Your task to perform on an android device: turn off airplane mode Image 0: 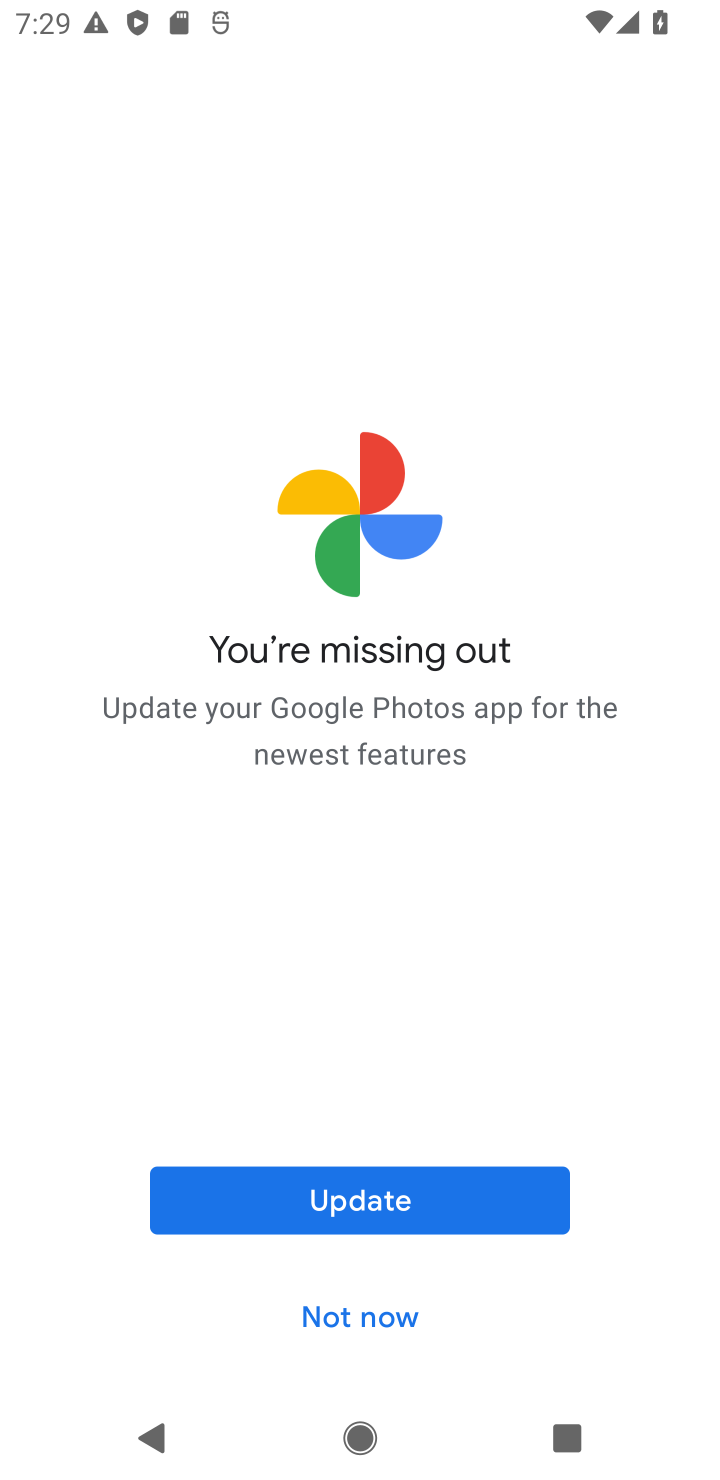
Step 0: drag from (482, 4) to (490, 830)
Your task to perform on an android device: turn off airplane mode Image 1: 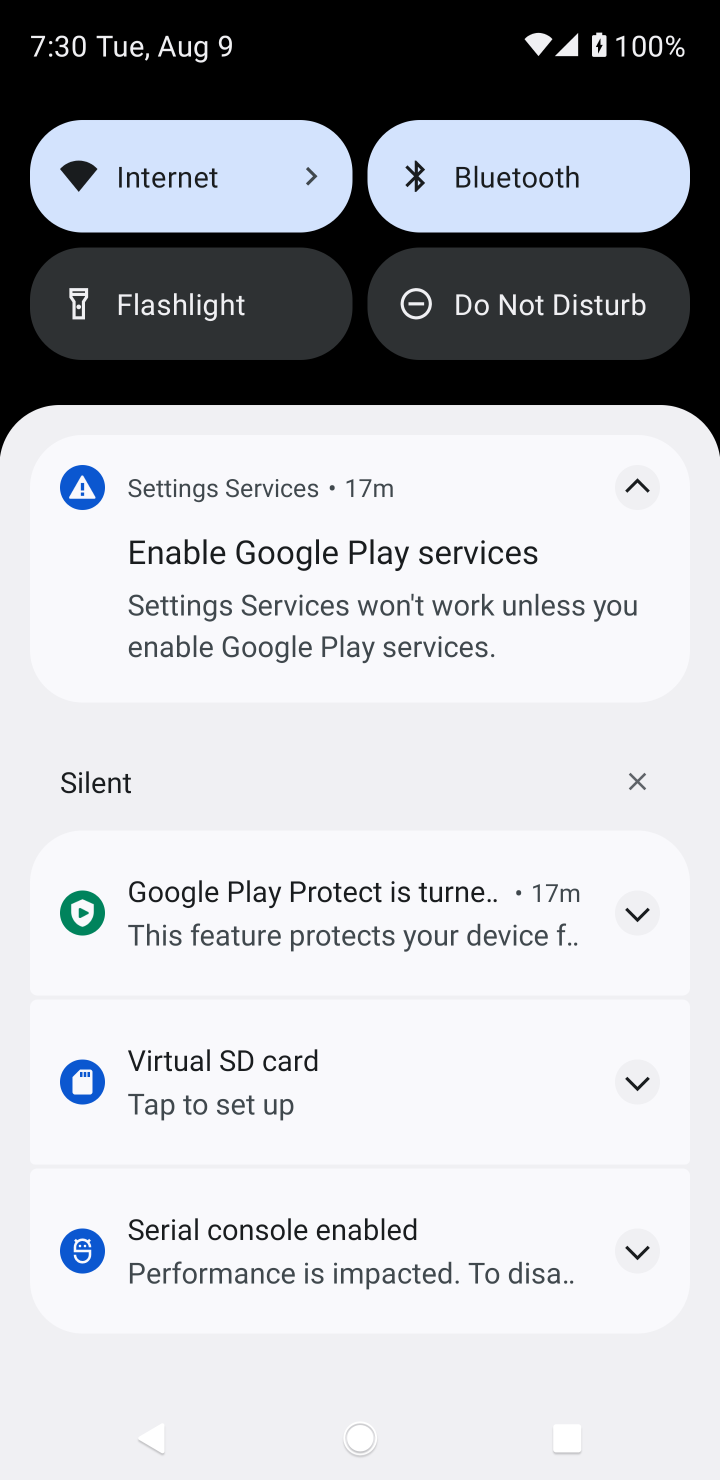
Step 1: drag from (350, 232) to (402, 581)
Your task to perform on an android device: turn off airplane mode Image 2: 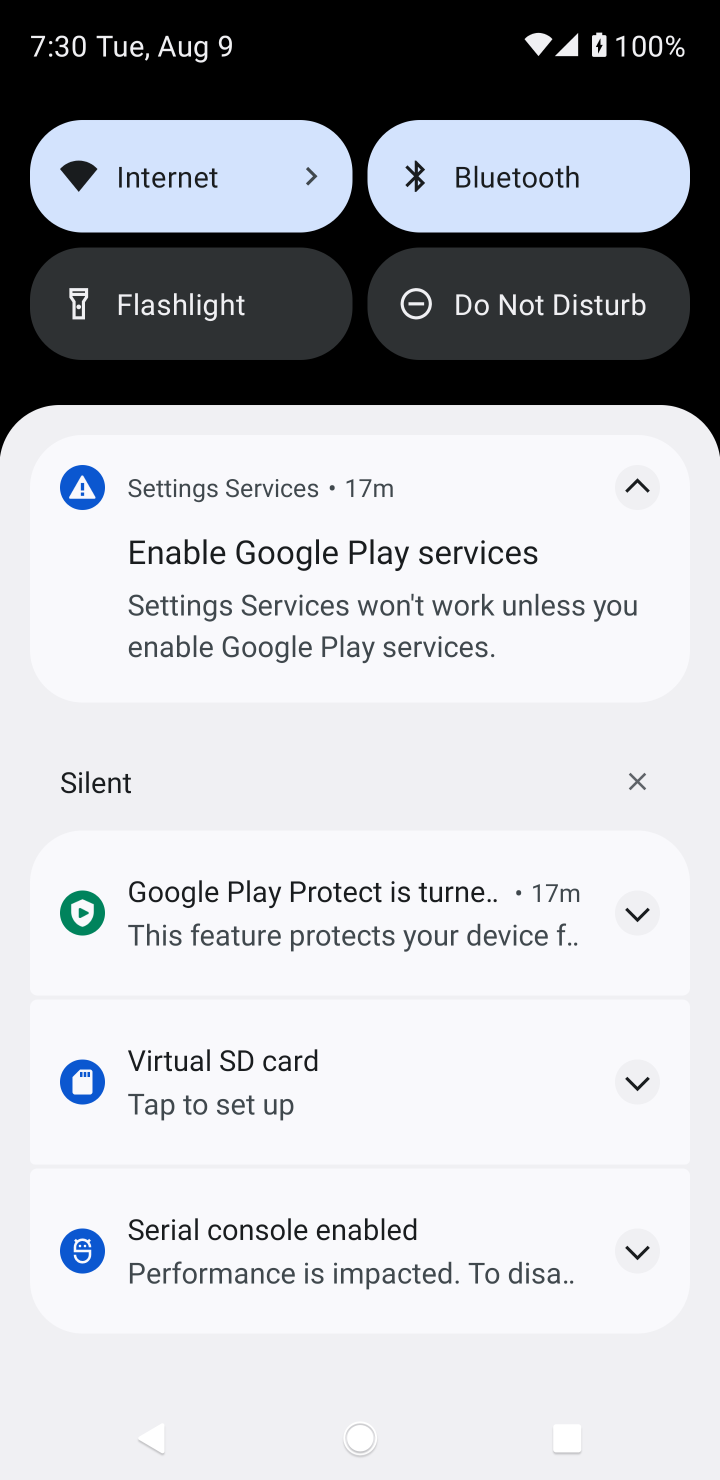
Step 2: drag from (347, 248) to (446, 1025)
Your task to perform on an android device: turn off airplane mode Image 3: 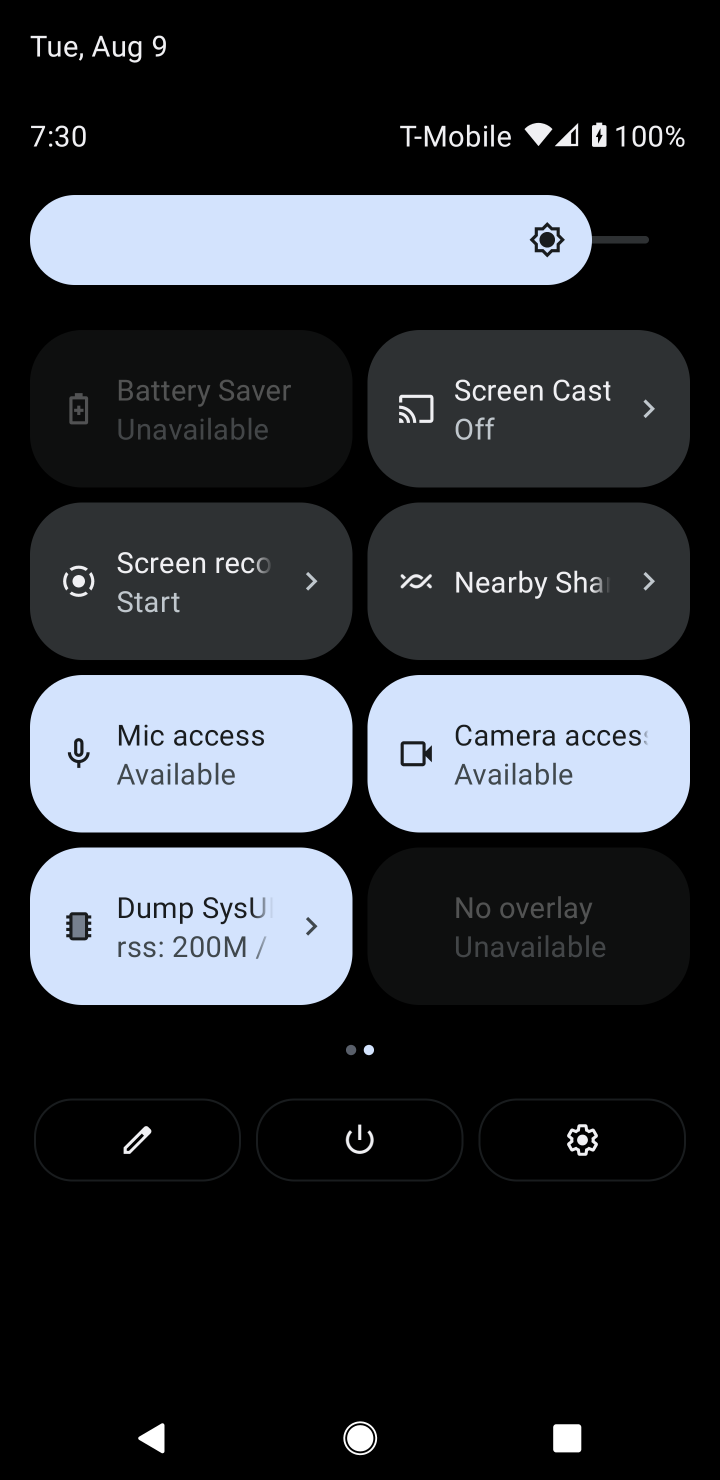
Step 3: drag from (127, 1058) to (599, 998)
Your task to perform on an android device: turn off airplane mode Image 4: 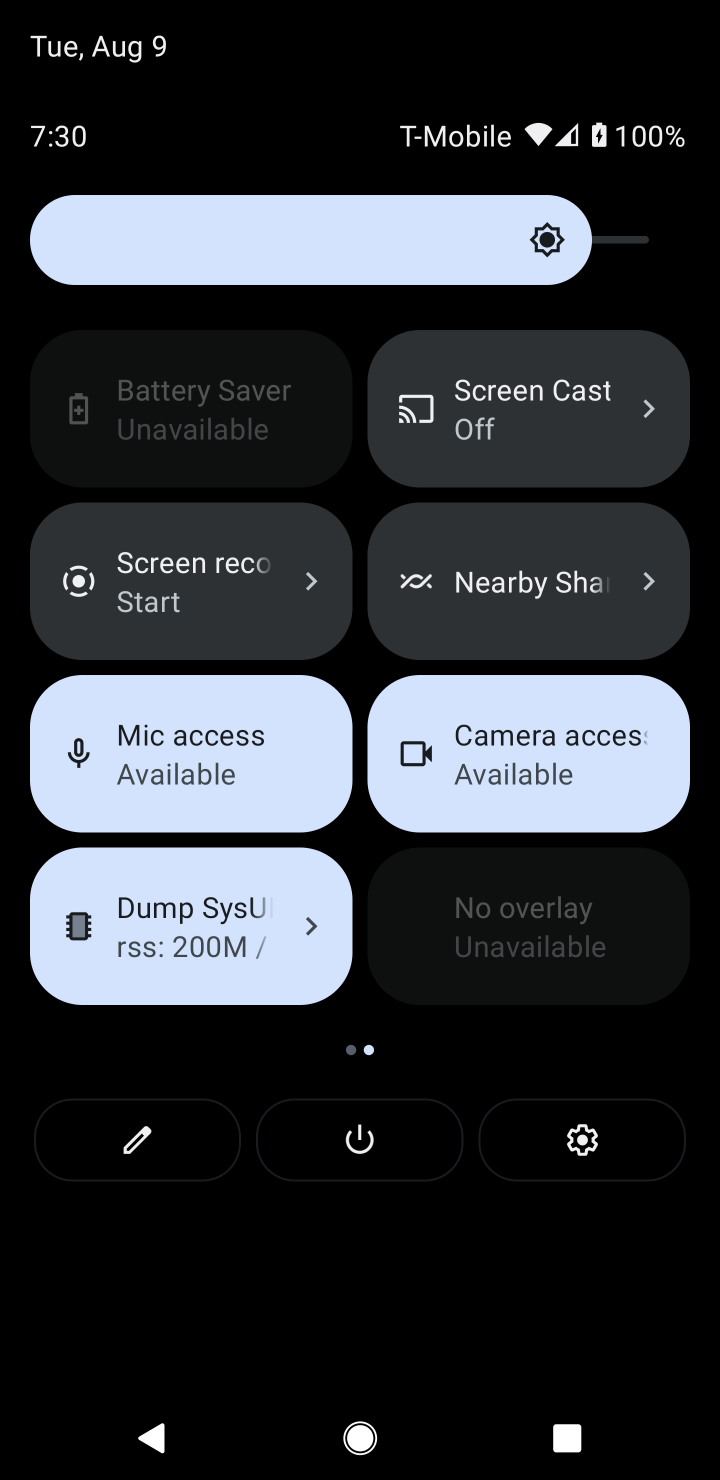
Step 4: click (571, 1137)
Your task to perform on an android device: turn off airplane mode Image 5: 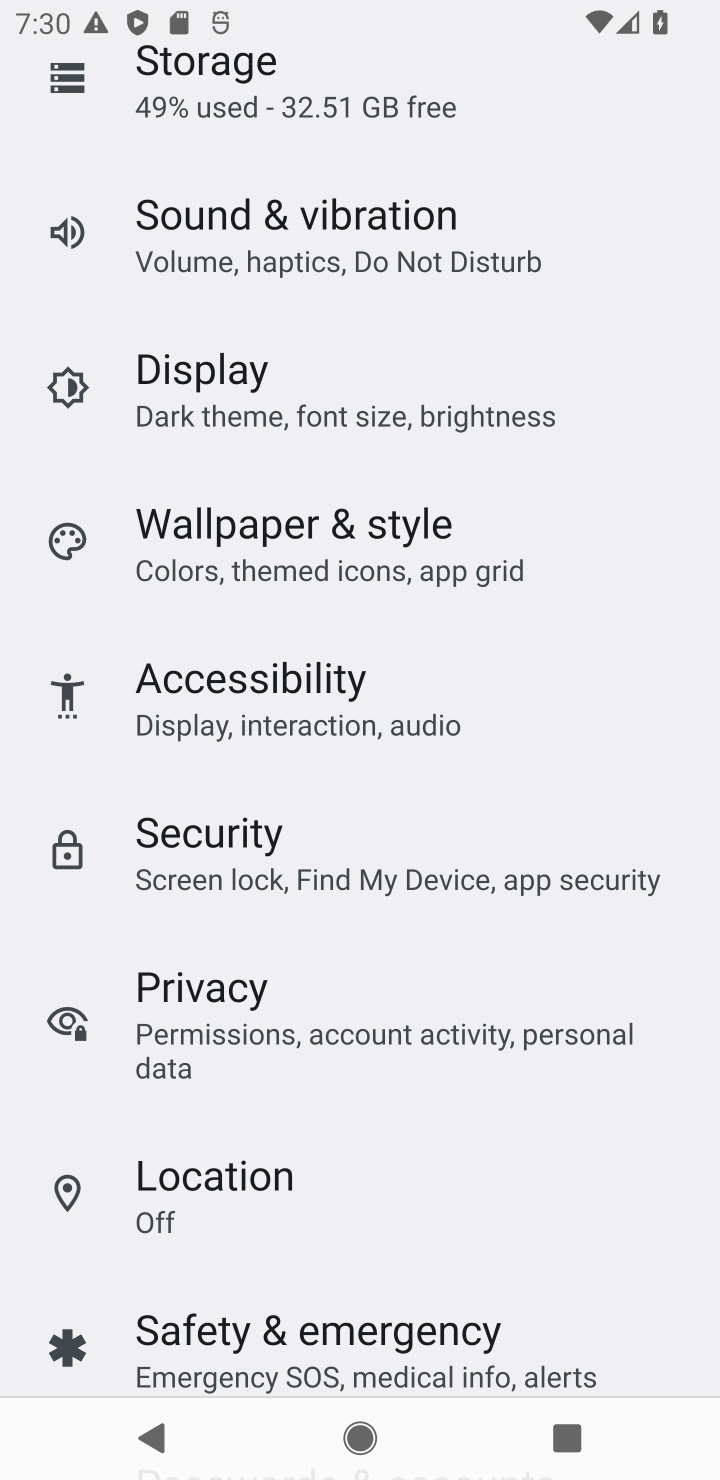
Step 5: drag from (181, 161) to (274, 1027)
Your task to perform on an android device: turn off airplane mode Image 6: 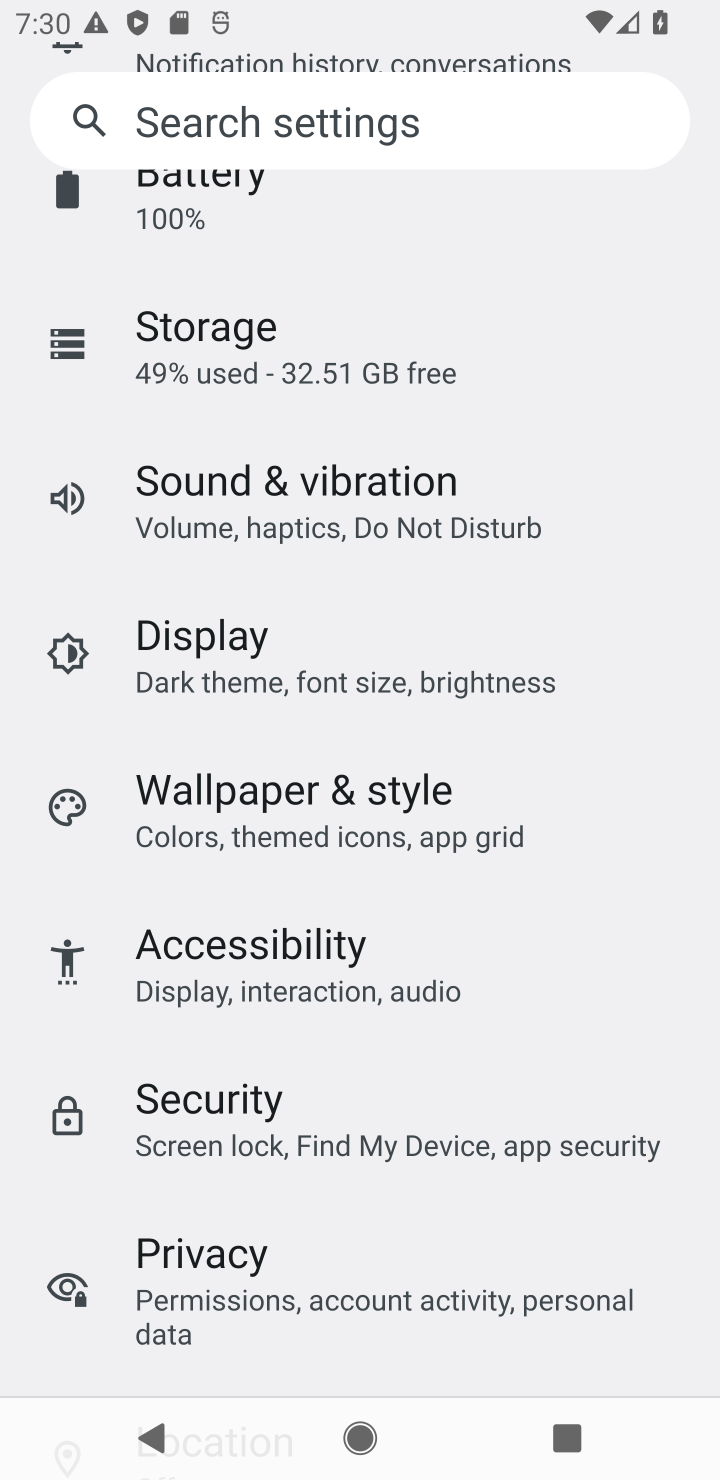
Step 6: drag from (479, 401) to (384, 1151)
Your task to perform on an android device: turn off airplane mode Image 7: 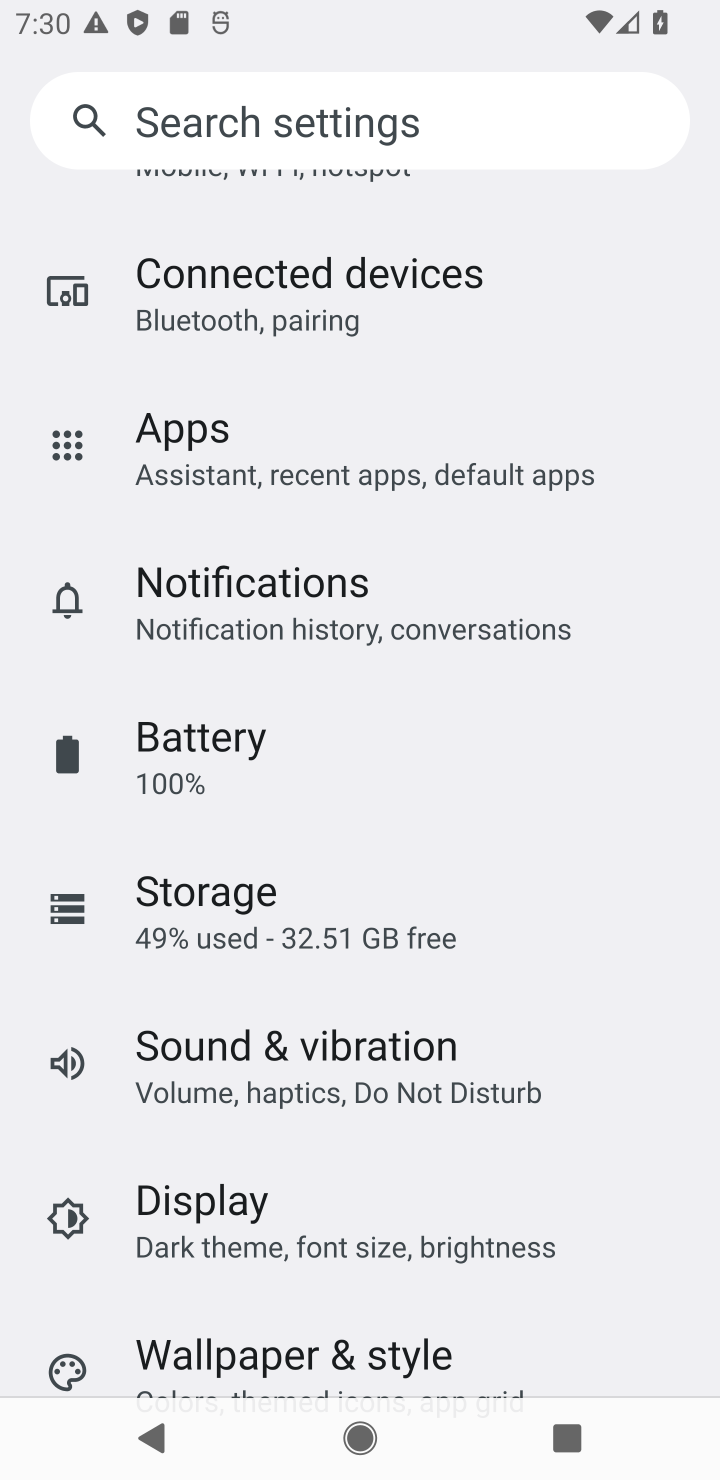
Step 7: drag from (450, 176) to (466, 1337)
Your task to perform on an android device: turn off airplane mode Image 8: 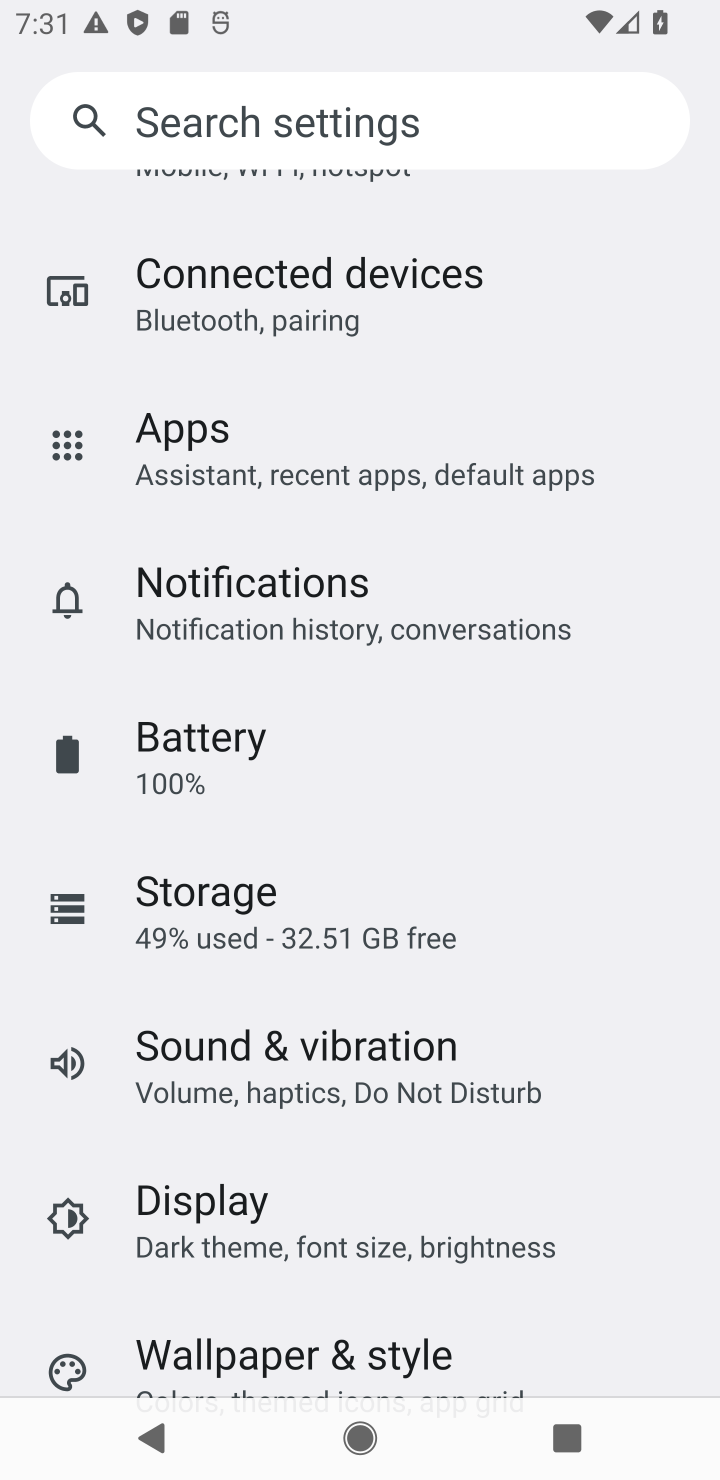
Step 8: drag from (347, 229) to (442, 1119)
Your task to perform on an android device: turn off airplane mode Image 9: 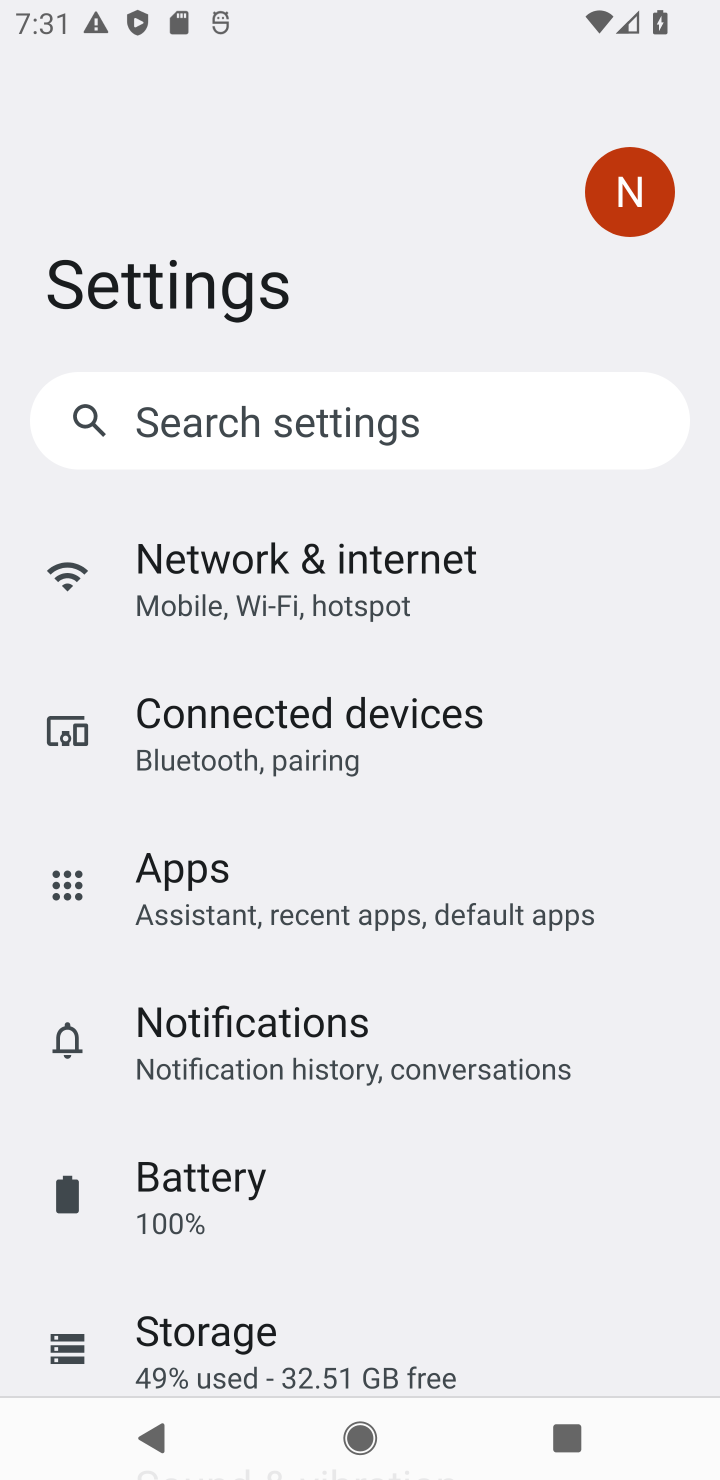
Step 9: click (337, 537)
Your task to perform on an android device: turn off airplane mode Image 10: 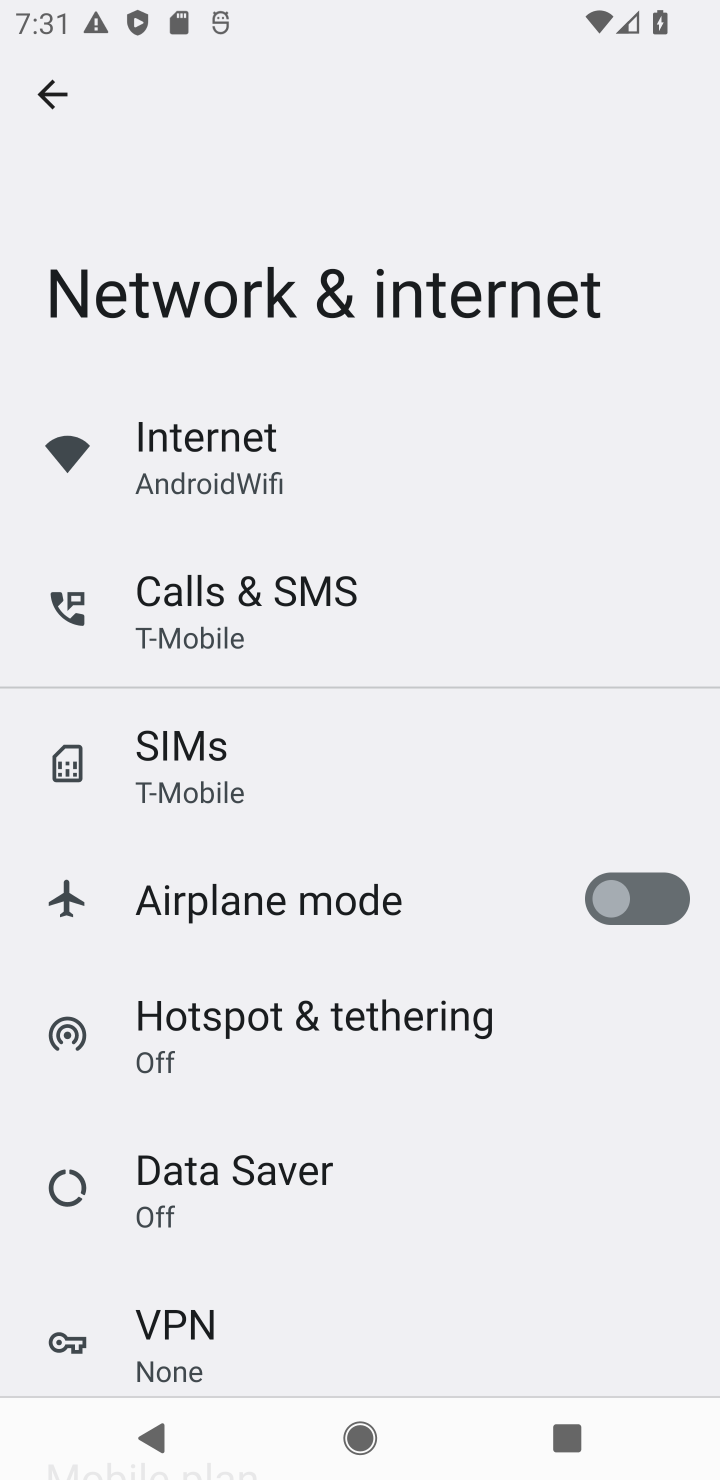
Step 10: task complete